Your task to perform on an android device: Turn on the flashlight Image 0: 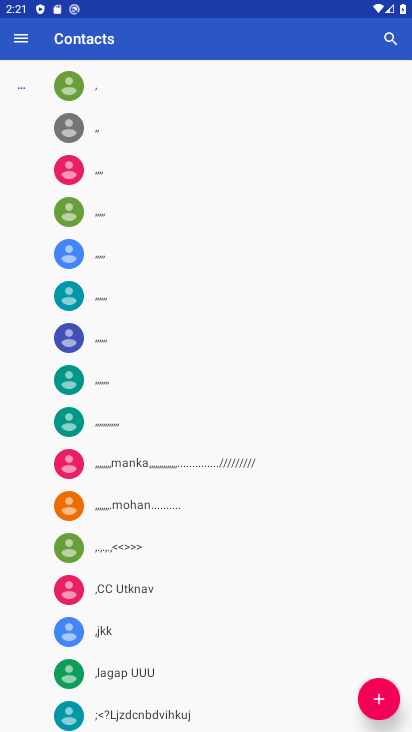
Step 0: press home button
Your task to perform on an android device: Turn on the flashlight Image 1: 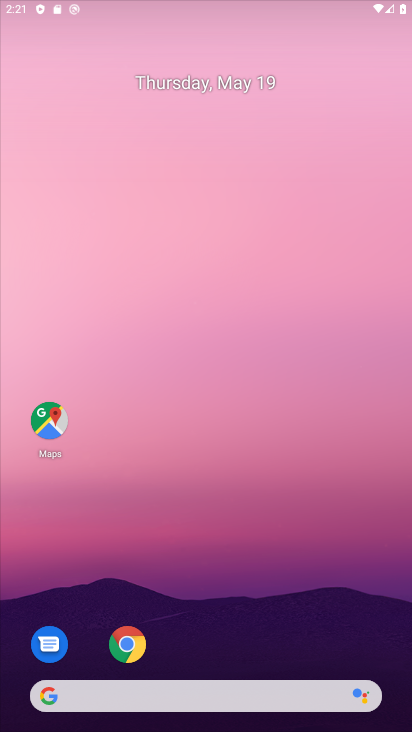
Step 1: drag from (276, 315) to (281, 183)
Your task to perform on an android device: Turn on the flashlight Image 2: 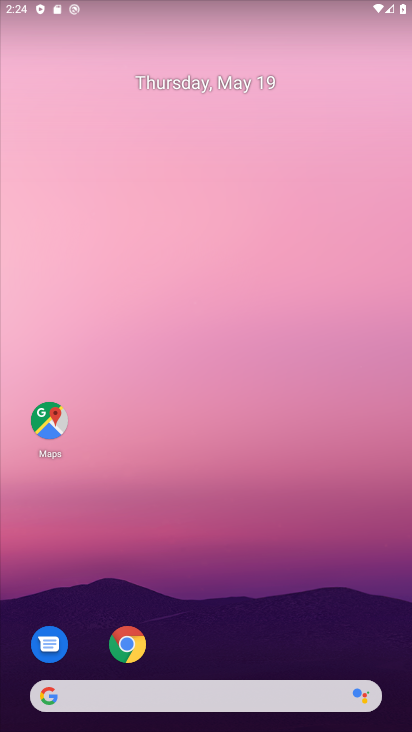
Step 2: drag from (242, 627) to (248, 228)
Your task to perform on an android device: Turn on the flashlight Image 3: 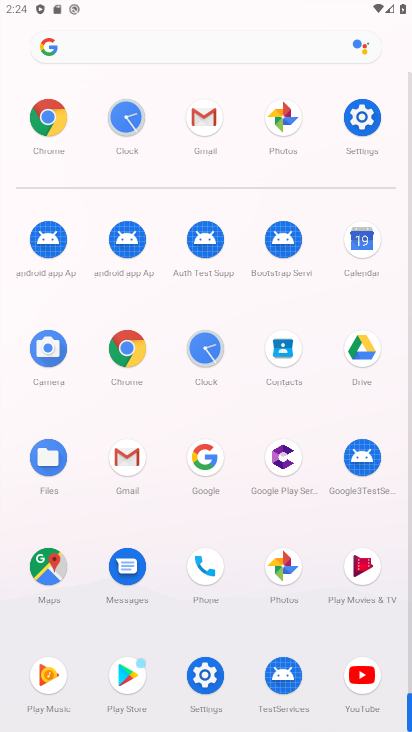
Step 3: click (362, 106)
Your task to perform on an android device: Turn on the flashlight Image 4: 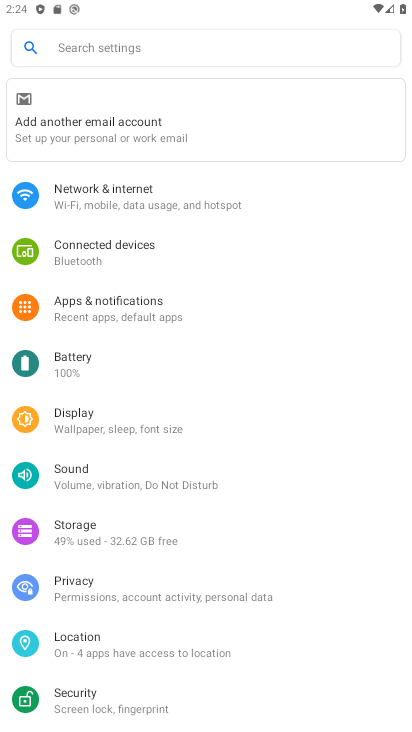
Step 4: task complete